Your task to perform on an android device: Go to CNN.com Image 0: 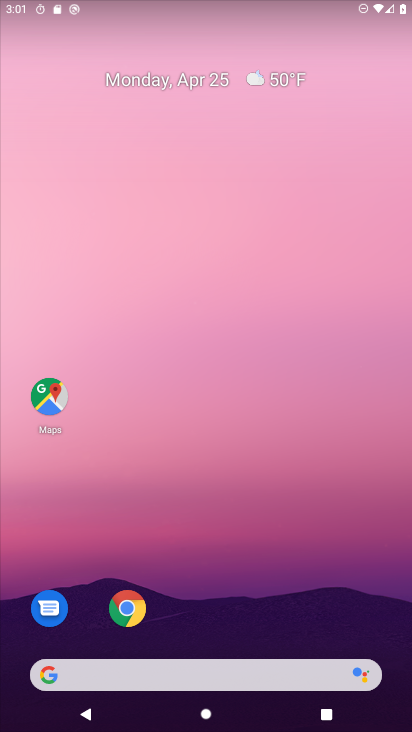
Step 0: click (183, 674)
Your task to perform on an android device: Go to CNN.com Image 1: 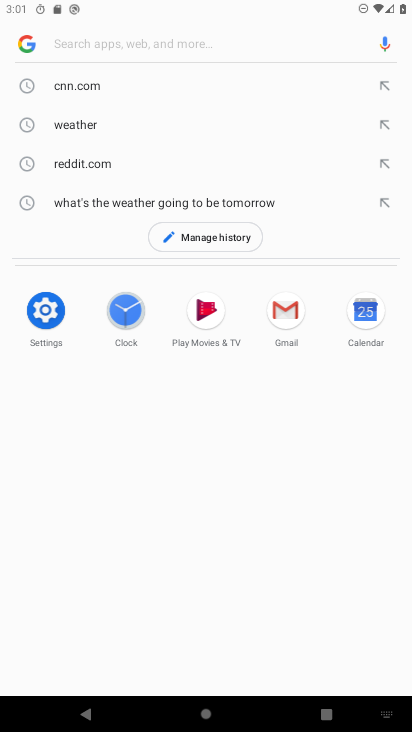
Step 1: click (128, 87)
Your task to perform on an android device: Go to CNN.com Image 2: 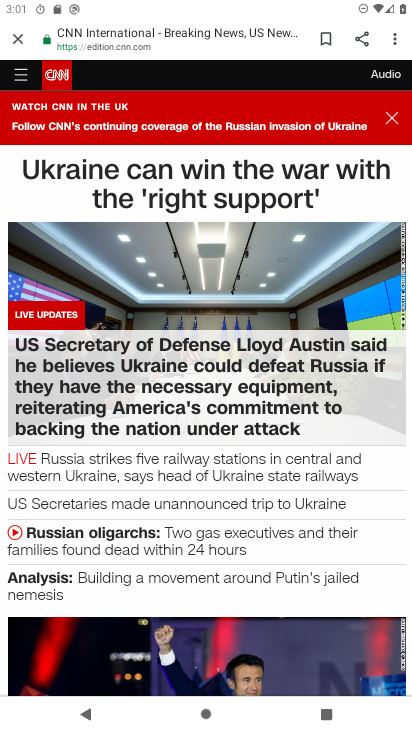
Step 2: task complete